Your task to perform on an android device: turn on improve location accuracy Image 0: 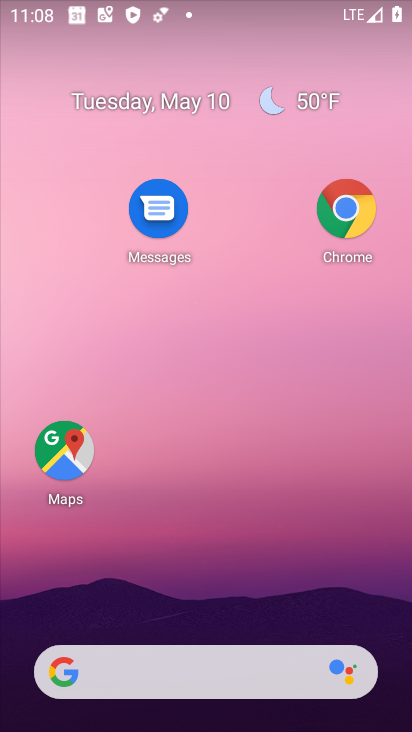
Step 0: drag from (218, 620) to (185, 58)
Your task to perform on an android device: turn on improve location accuracy Image 1: 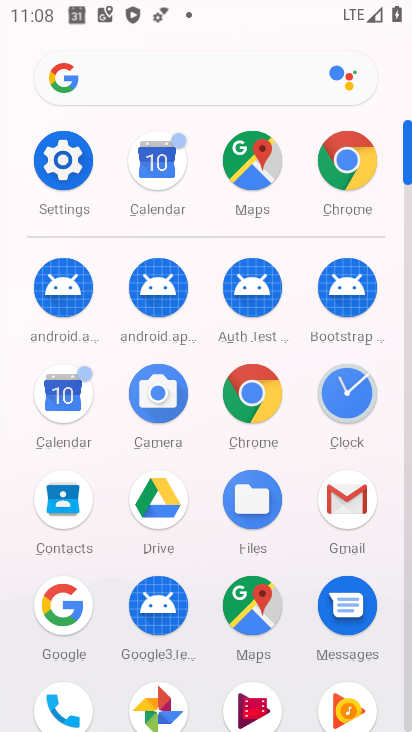
Step 1: click (67, 180)
Your task to perform on an android device: turn on improve location accuracy Image 2: 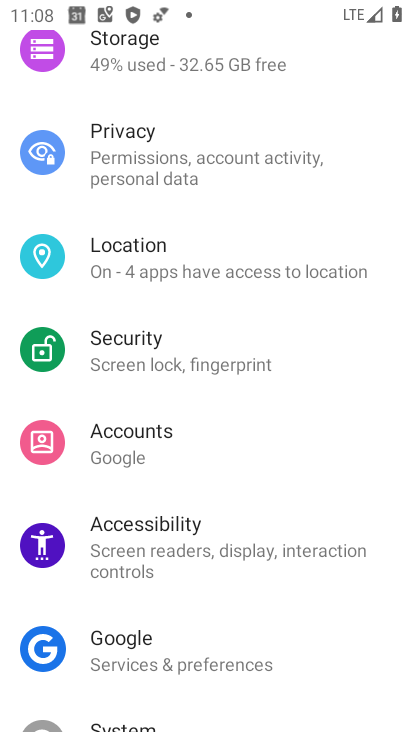
Step 2: click (133, 237)
Your task to perform on an android device: turn on improve location accuracy Image 3: 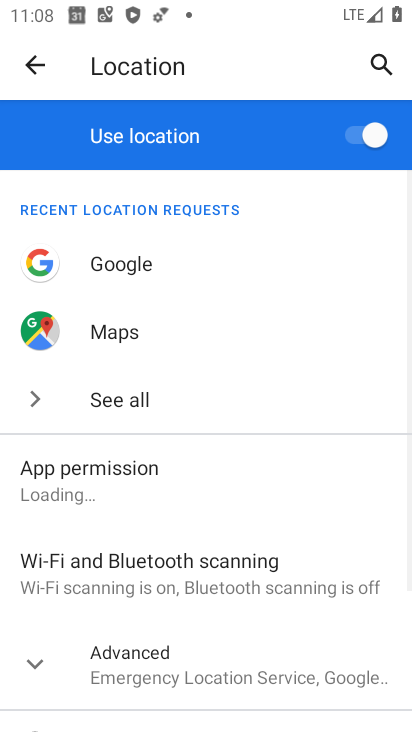
Step 3: click (188, 672)
Your task to perform on an android device: turn on improve location accuracy Image 4: 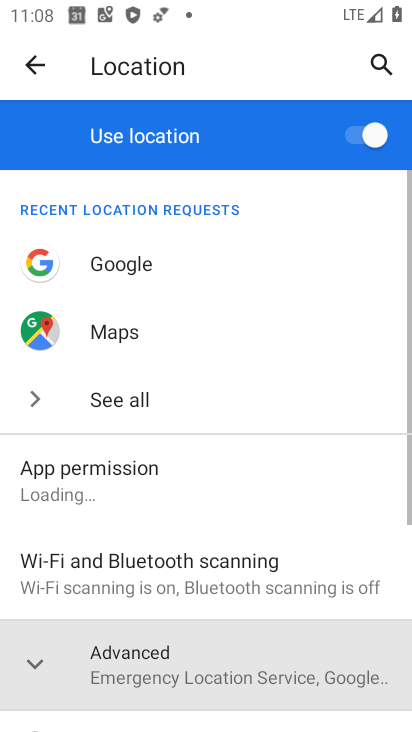
Step 4: drag from (188, 672) to (188, 235)
Your task to perform on an android device: turn on improve location accuracy Image 5: 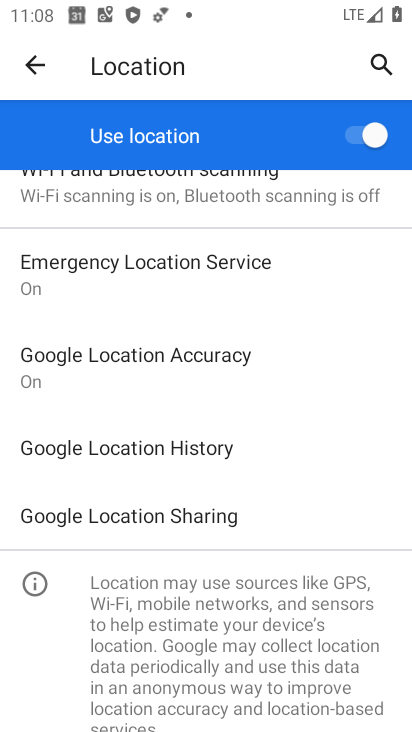
Step 5: click (185, 367)
Your task to perform on an android device: turn on improve location accuracy Image 6: 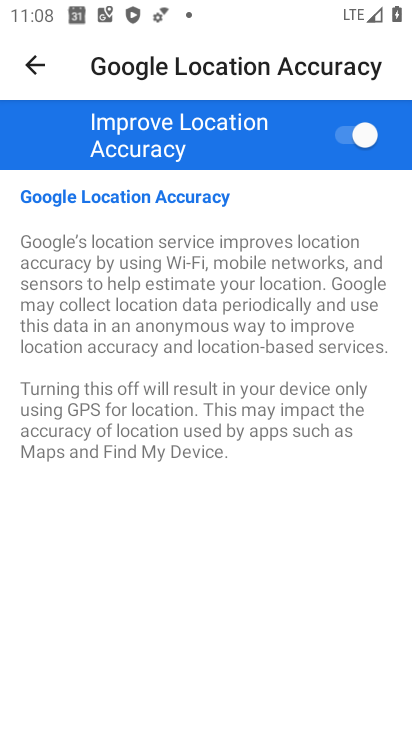
Step 6: task complete